Your task to perform on an android device: Do I have any events today? Image 0: 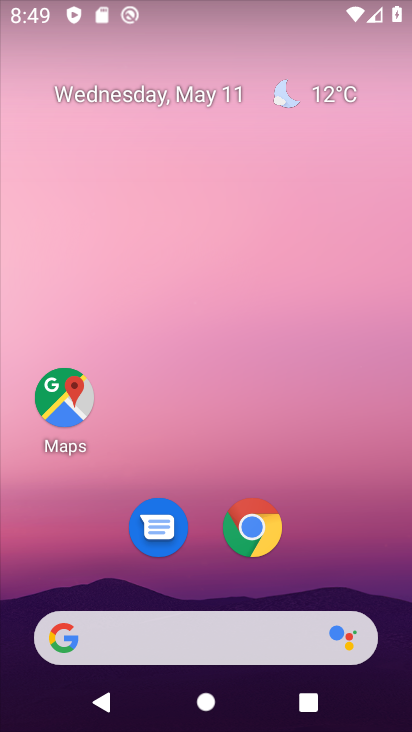
Step 0: drag from (336, 535) to (352, 110)
Your task to perform on an android device: Do I have any events today? Image 1: 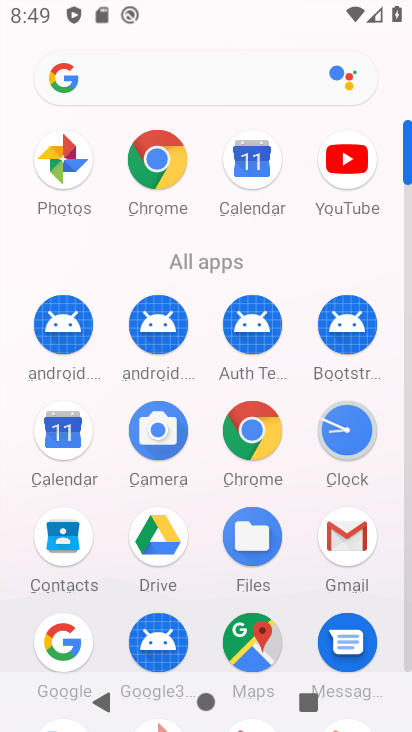
Step 1: click (58, 423)
Your task to perform on an android device: Do I have any events today? Image 2: 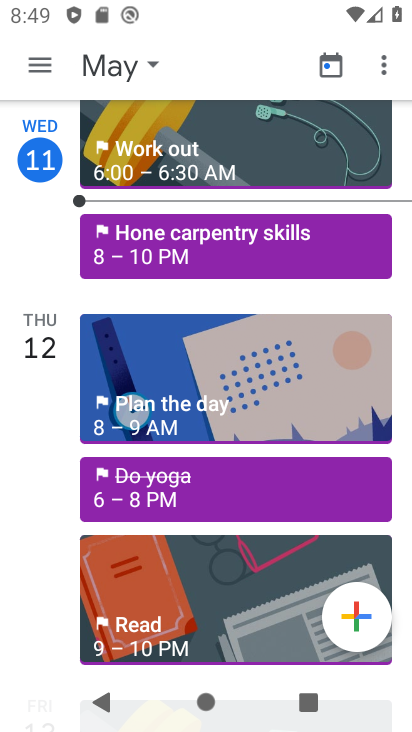
Step 2: task complete